Your task to perform on an android device: check data usage Image 0: 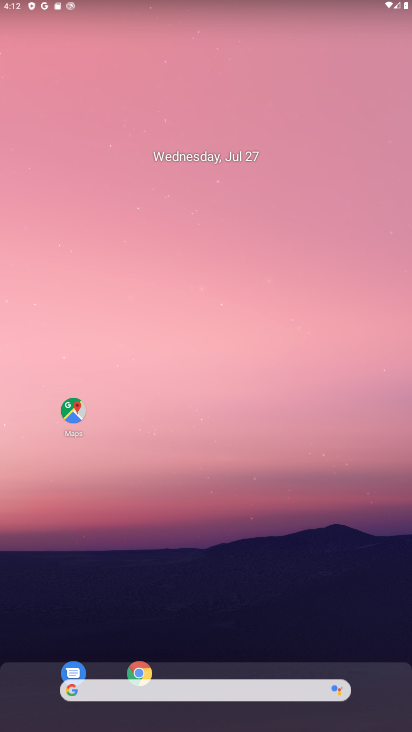
Step 0: drag from (397, 685) to (377, 96)
Your task to perform on an android device: check data usage Image 1: 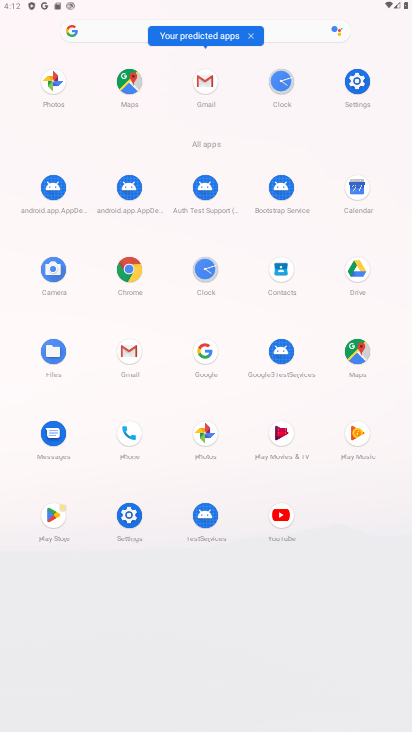
Step 1: click (130, 515)
Your task to perform on an android device: check data usage Image 2: 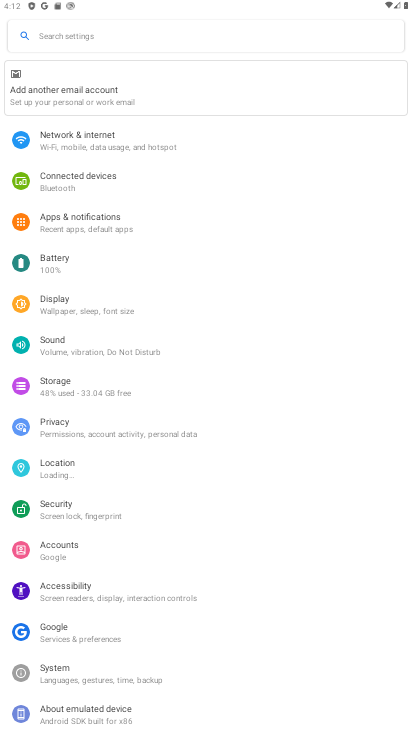
Step 2: click (64, 136)
Your task to perform on an android device: check data usage Image 3: 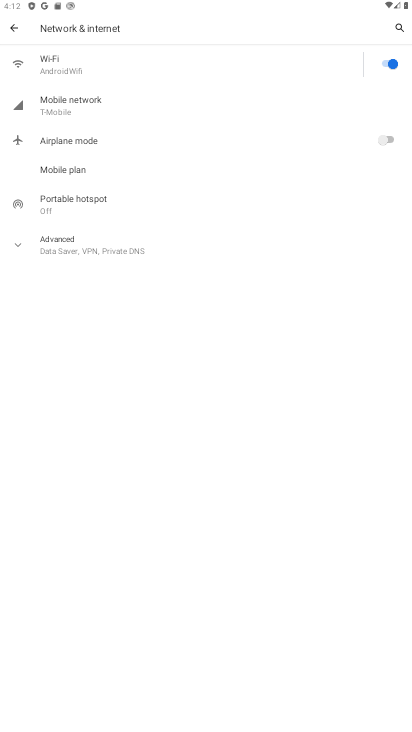
Step 3: click (72, 100)
Your task to perform on an android device: check data usage Image 4: 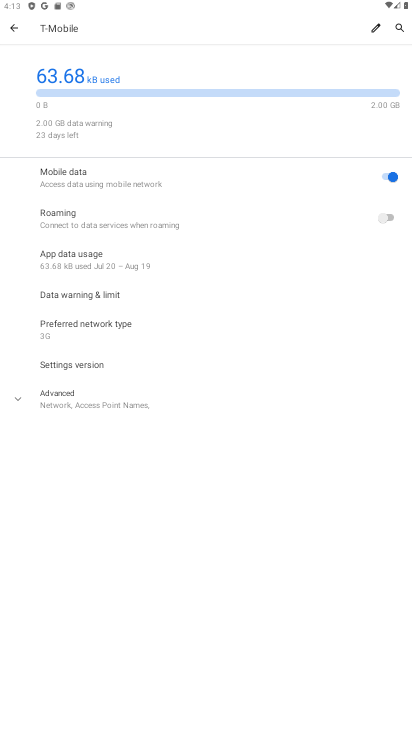
Step 4: task complete